Your task to perform on an android device: Open Yahoo.com Image 0: 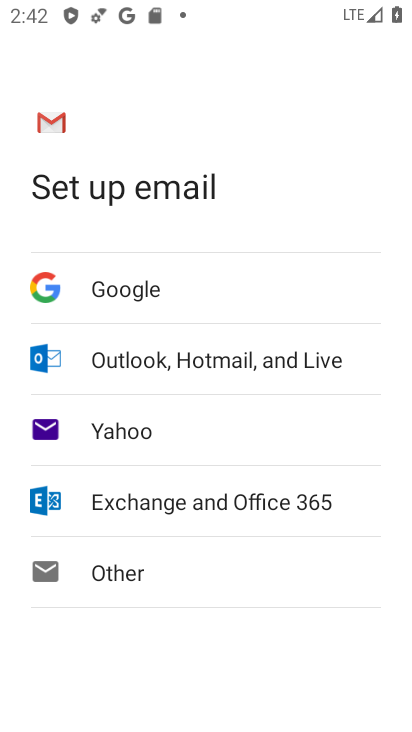
Step 0: press home button
Your task to perform on an android device: Open Yahoo.com Image 1: 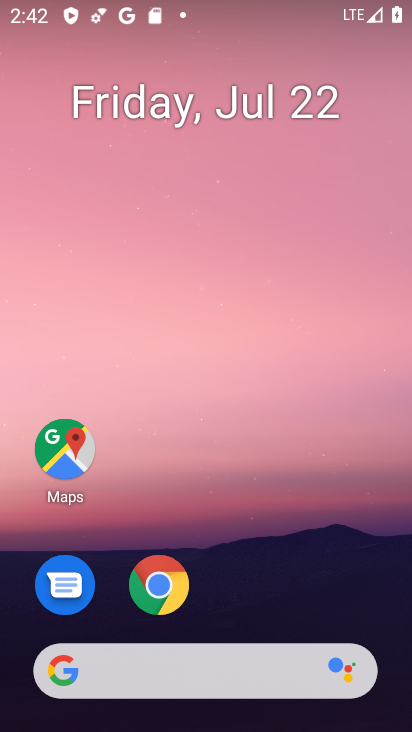
Step 1: click (216, 689)
Your task to perform on an android device: Open Yahoo.com Image 2: 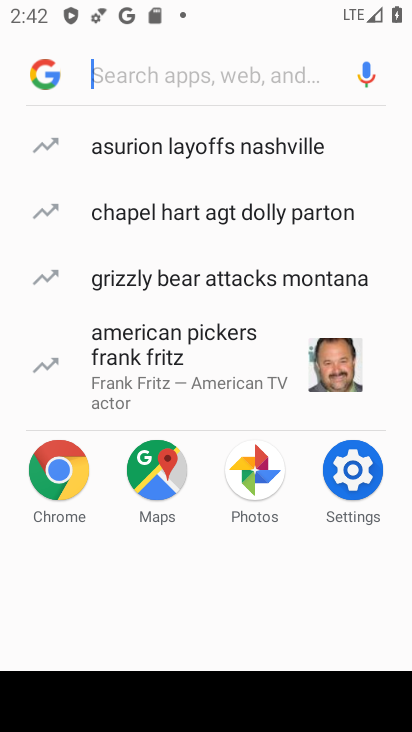
Step 2: type "yahoo.com"
Your task to perform on an android device: Open Yahoo.com Image 3: 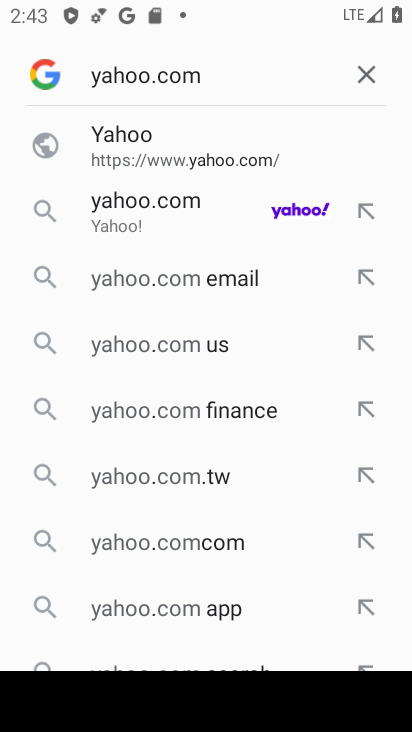
Step 3: click (306, 211)
Your task to perform on an android device: Open Yahoo.com Image 4: 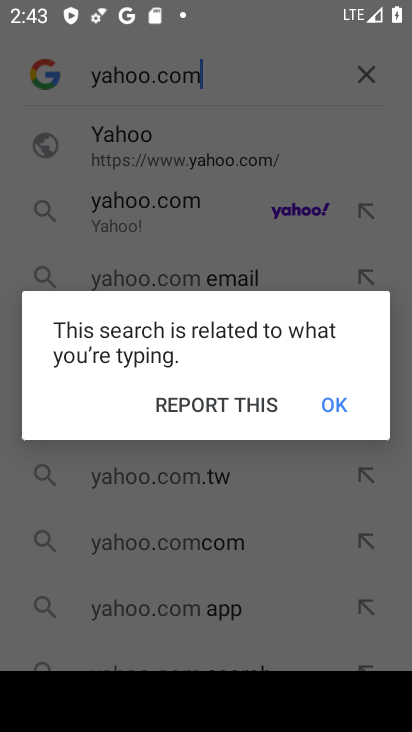
Step 4: click (327, 400)
Your task to perform on an android device: Open Yahoo.com Image 5: 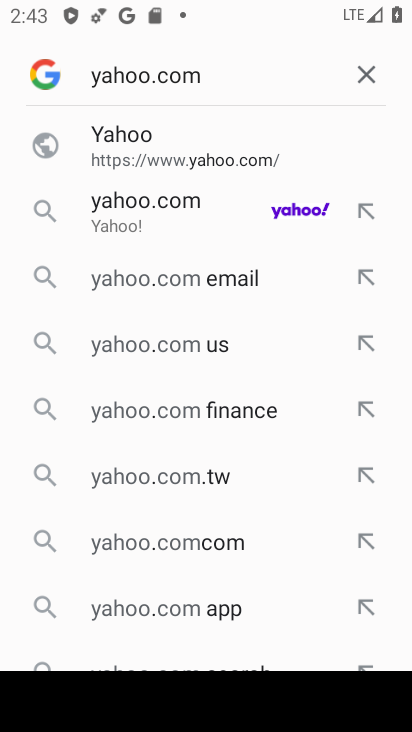
Step 5: click (169, 211)
Your task to perform on an android device: Open Yahoo.com Image 6: 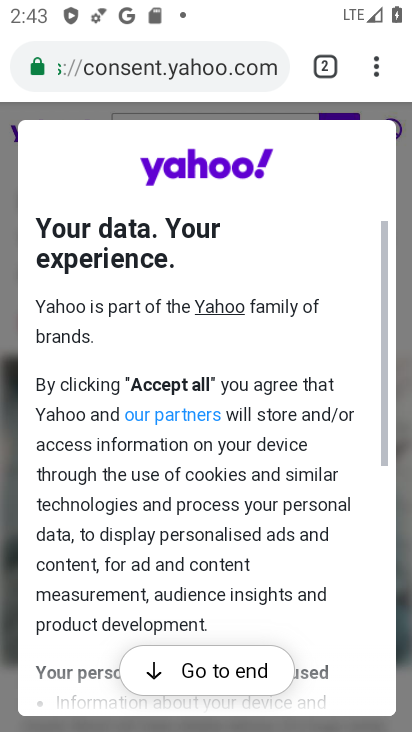
Step 6: click (245, 671)
Your task to perform on an android device: Open Yahoo.com Image 7: 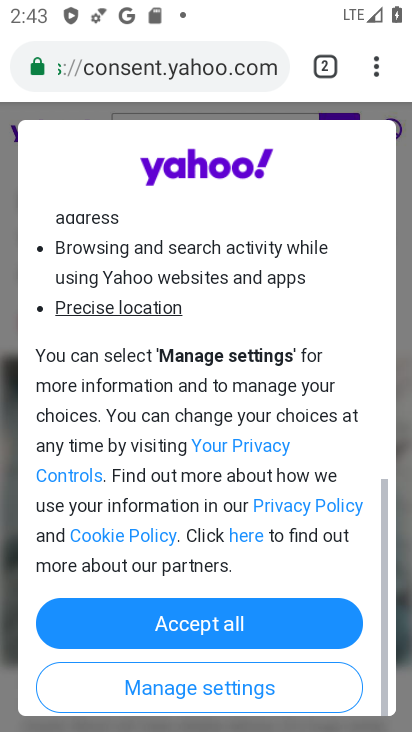
Step 7: click (252, 630)
Your task to perform on an android device: Open Yahoo.com Image 8: 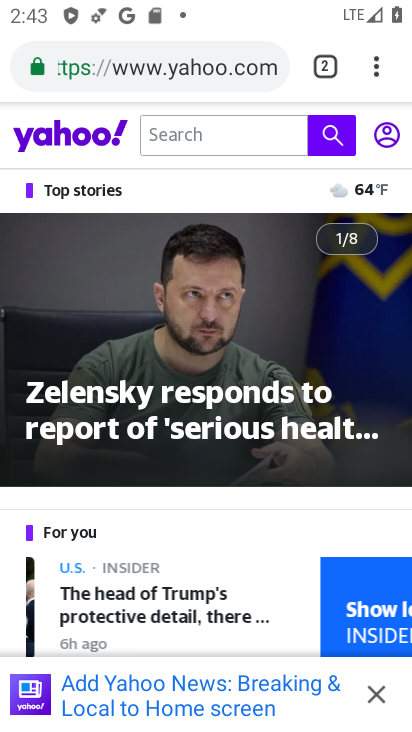
Step 8: task complete